Your task to perform on an android device: turn notification dots on Image 0: 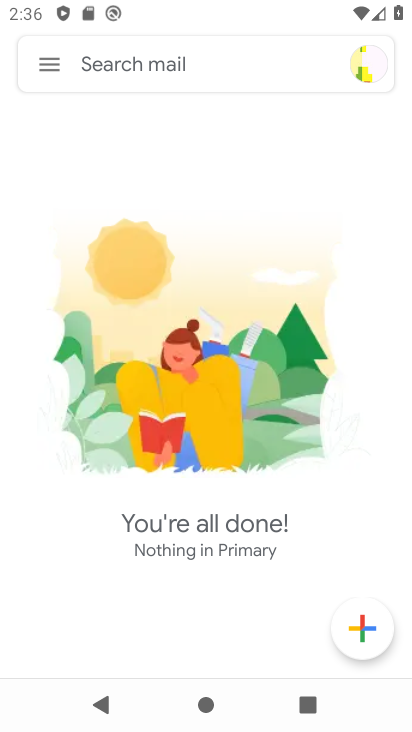
Step 0: click (49, 68)
Your task to perform on an android device: turn notification dots on Image 1: 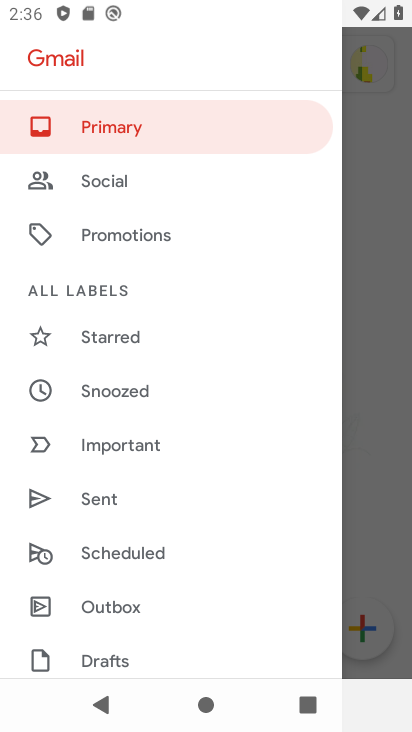
Step 1: press home button
Your task to perform on an android device: turn notification dots on Image 2: 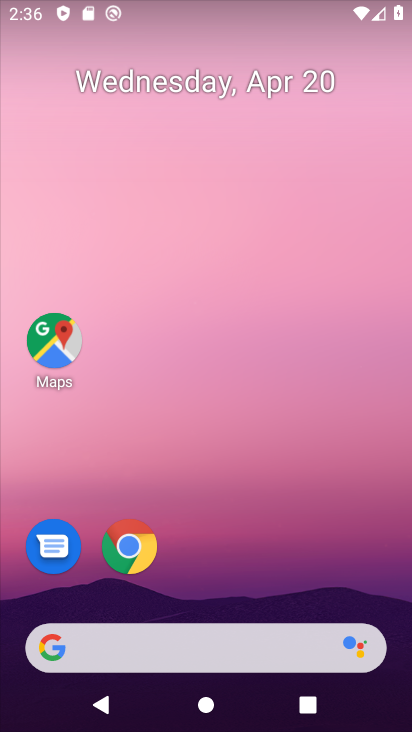
Step 2: drag from (297, 481) to (297, 148)
Your task to perform on an android device: turn notification dots on Image 3: 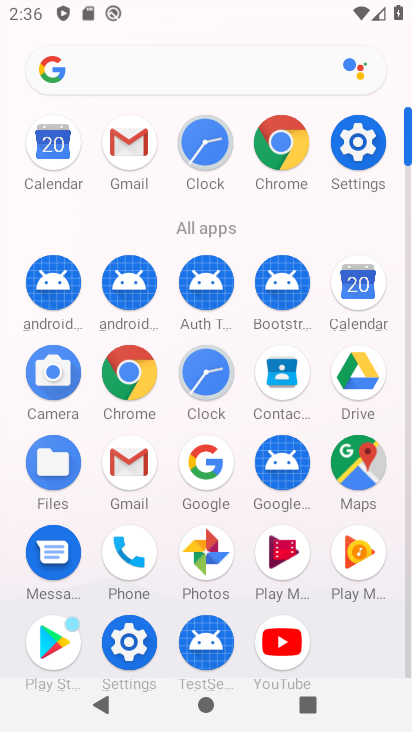
Step 3: click (137, 662)
Your task to perform on an android device: turn notification dots on Image 4: 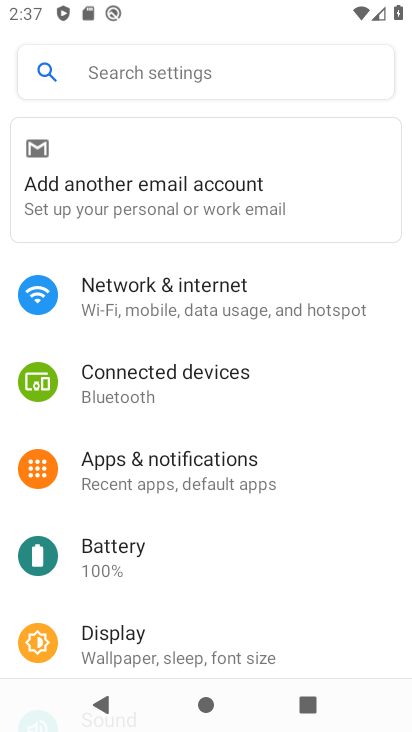
Step 4: click (215, 482)
Your task to perform on an android device: turn notification dots on Image 5: 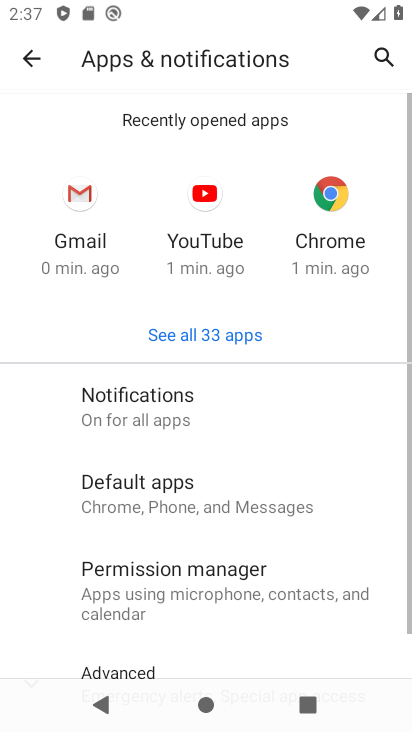
Step 5: click (189, 417)
Your task to perform on an android device: turn notification dots on Image 6: 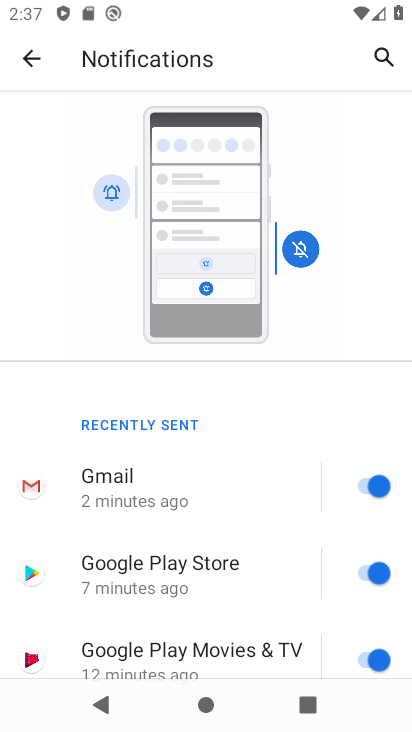
Step 6: drag from (202, 627) to (189, 194)
Your task to perform on an android device: turn notification dots on Image 7: 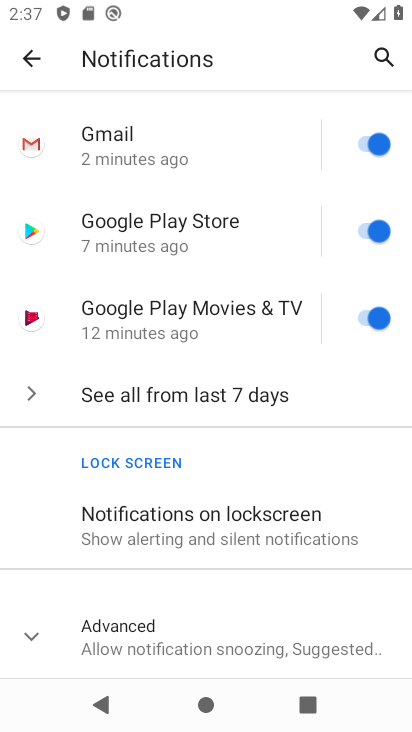
Step 7: click (27, 639)
Your task to perform on an android device: turn notification dots on Image 8: 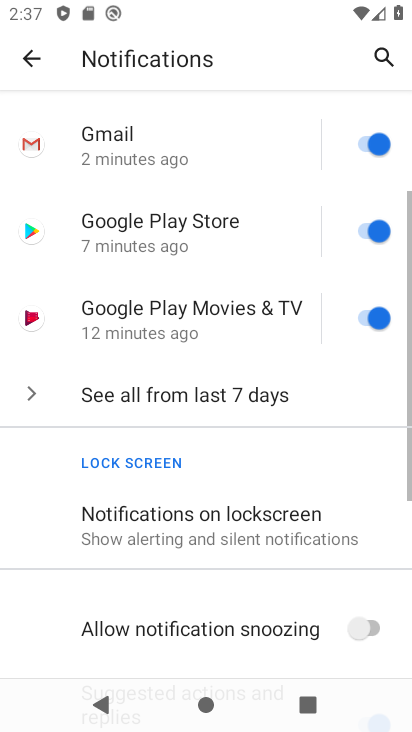
Step 8: task complete